Your task to perform on an android device: Open Youtube and go to the subscriptions tab Image 0: 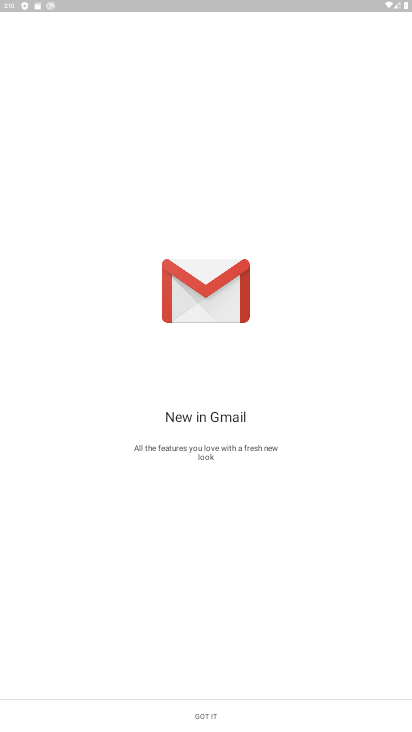
Step 0: press home button
Your task to perform on an android device: Open Youtube and go to the subscriptions tab Image 1: 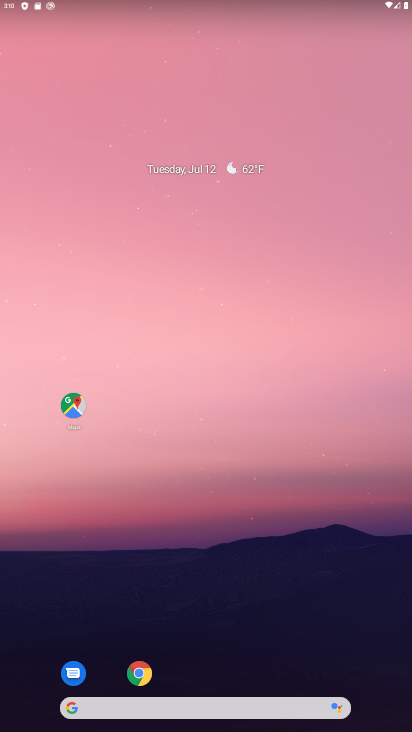
Step 1: drag from (206, 622) to (259, 79)
Your task to perform on an android device: Open Youtube and go to the subscriptions tab Image 2: 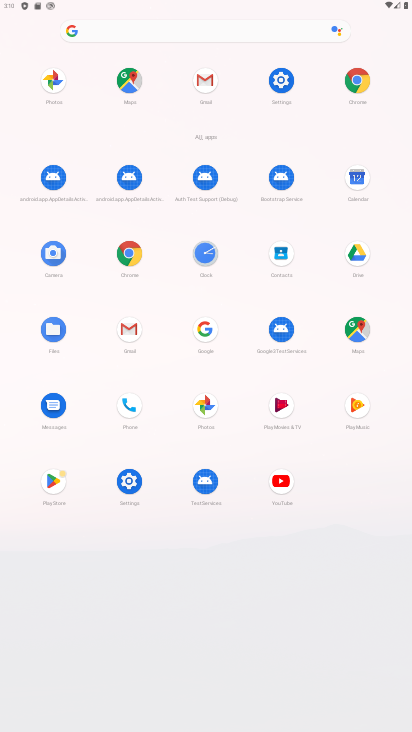
Step 2: click (290, 495)
Your task to perform on an android device: Open Youtube and go to the subscriptions tab Image 3: 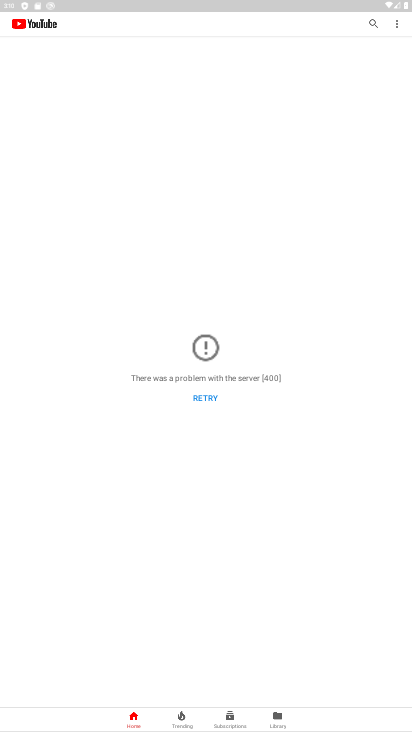
Step 3: click (229, 721)
Your task to perform on an android device: Open Youtube and go to the subscriptions tab Image 4: 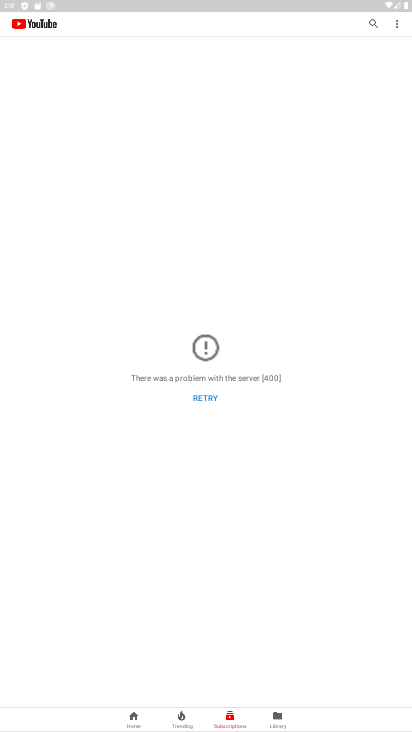
Step 4: task complete